Your task to perform on an android device: turn smart compose on in the gmail app Image 0: 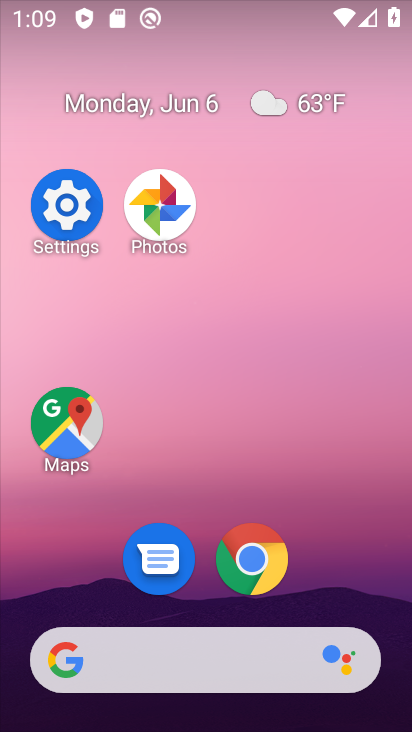
Step 0: drag from (373, 480) to (357, 38)
Your task to perform on an android device: turn smart compose on in the gmail app Image 1: 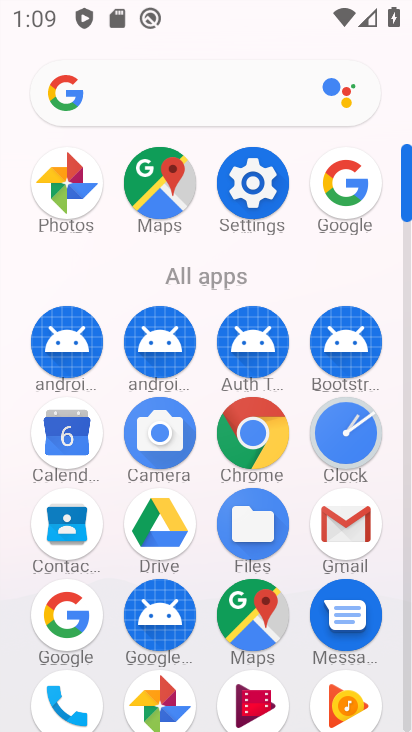
Step 1: drag from (336, 529) to (99, 318)
Your task to perform on an android device: turn smart compose on in the gmail app Image 2: 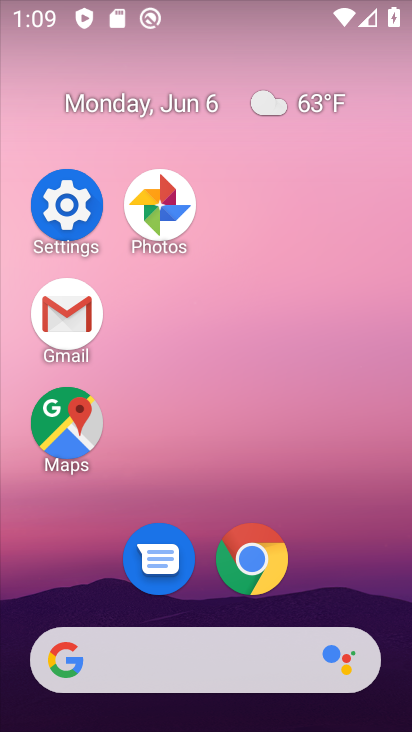
Step 2: click (88, 332)
Your task to perform on an android device: turn smart compose on in the gmail app Image 3: 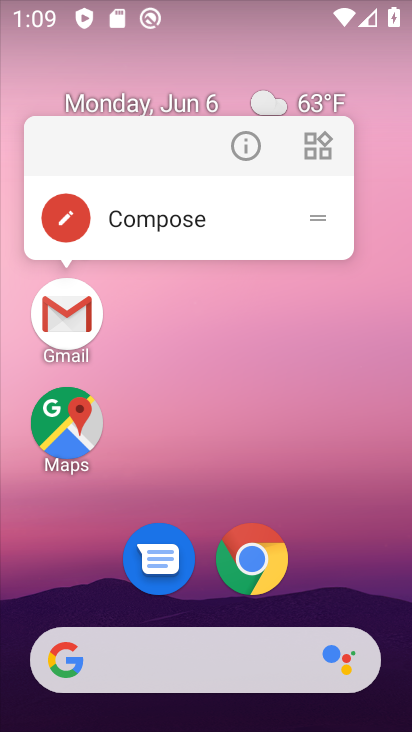
Step 3: click (78, 324)
Your task to perform on an android device: turn smart compose on in the gmail app Image 4: 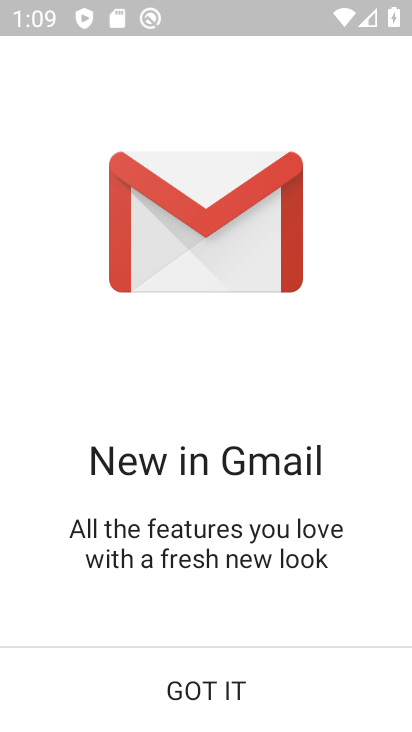
Step 4: click (227, 692)
Your task to perform on an android device: turn smart compose on in the gmail app Image 5: 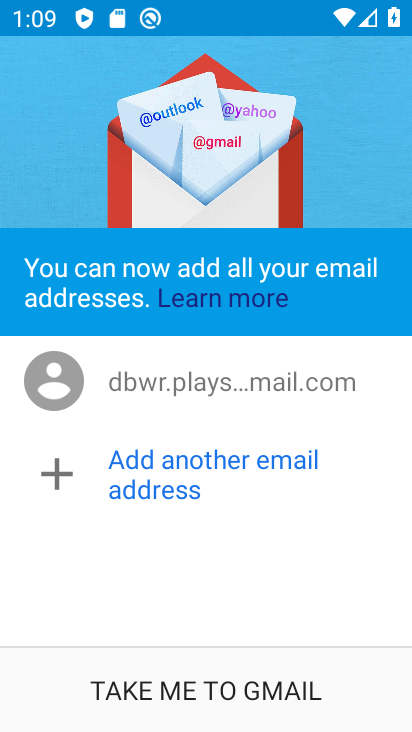
Step 5: click (257, 692)
Your task to perform on an android device: turn smart compose on in the gmail app Image 6: 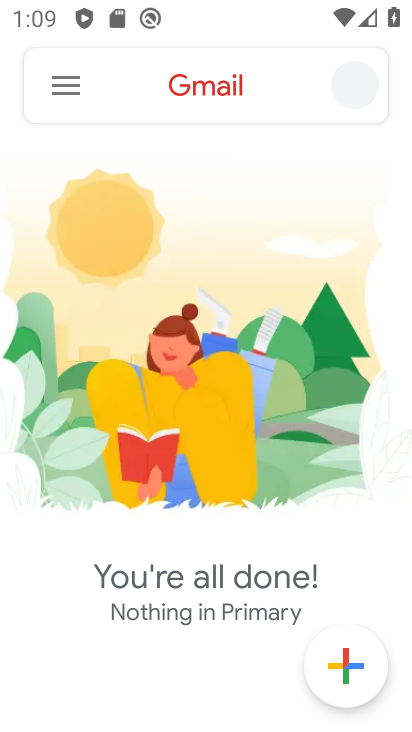
Step 6: click (76, 82)
Your task to perform on an android device: turn smart compose on in the gmail app Image 7: 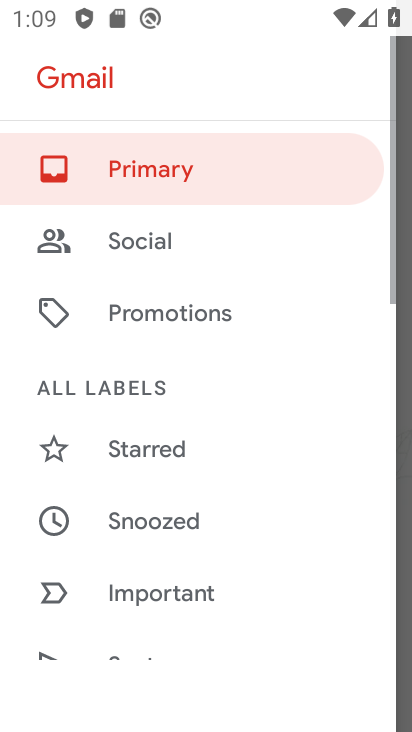
Step 7: drag from (213, 566) to (218, 86)
Your task to perform on an android device: turn smart compose on in the gmail app Image 8: 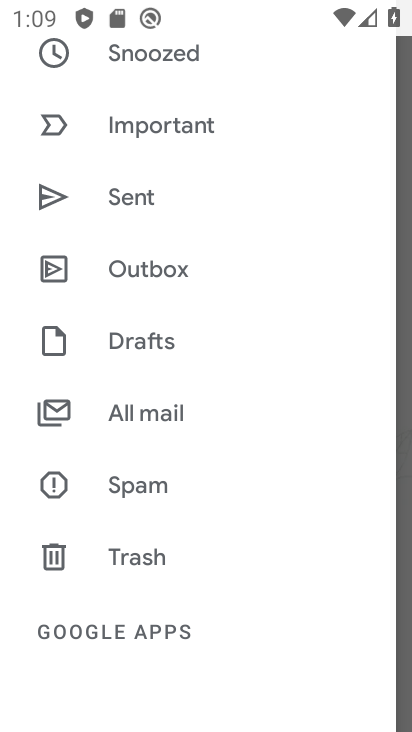
Step 8: drag from (221, 568) to (221, 178)
Your task to perform on an android device: turn smart compose on in the gmail app Image 9: 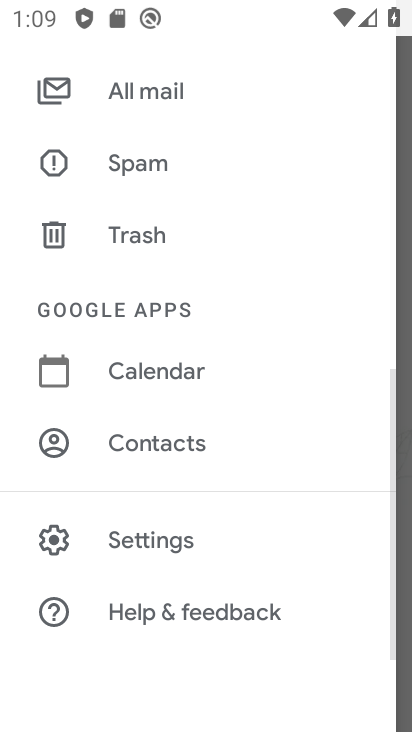
Step 9: click (170, 556)
Your task to perform on an android device: turn smart compose on in the gmail app Image 10: 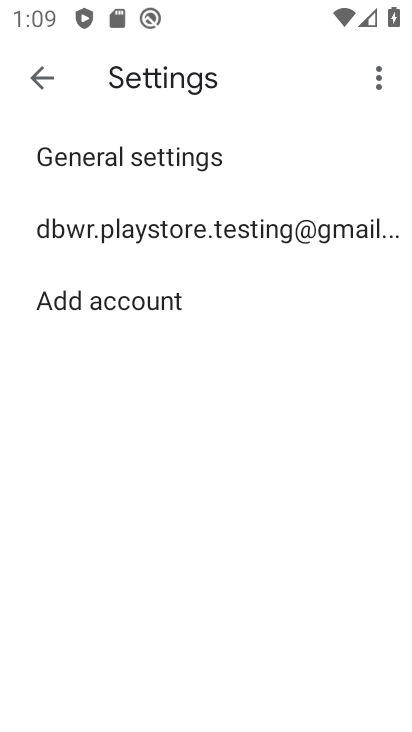
Step 10: click (200, 225)
Your task to perform on an android device: turn smart compose on in the gmail app Image 11: 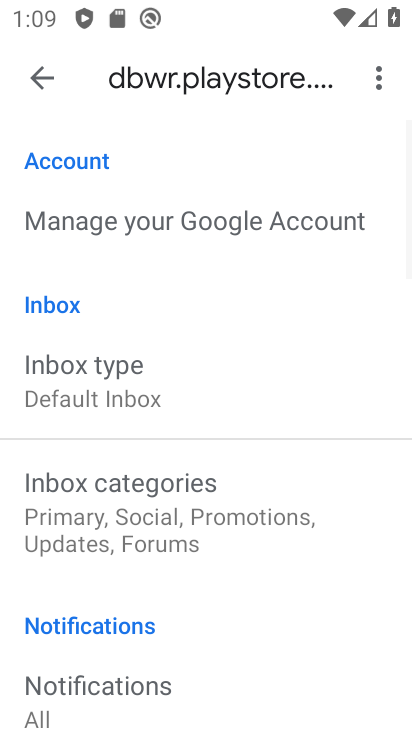
Step 11: task complete